Your task to perform on an android device: turn pop-ups on in chrome Image 0: 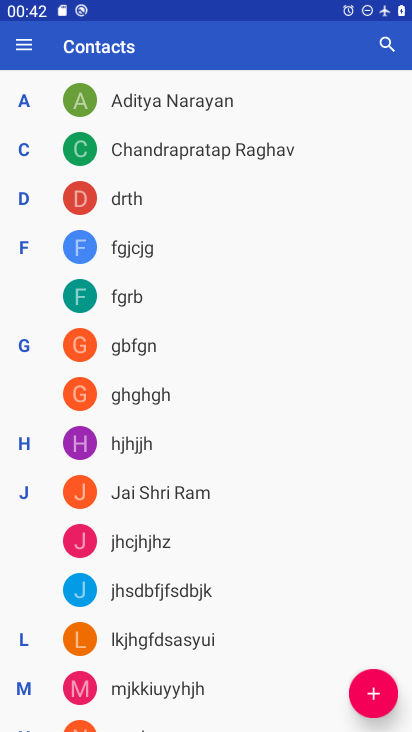
Step 0: press home button
Your task to perform on an android device: turn pop-ups on in chrome Image 1: 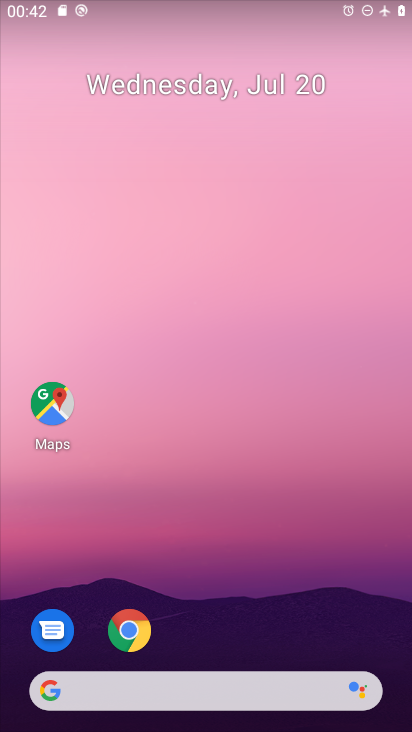
Step 1: click (123, 636)
Your task to perform on an android device: turn pop-ups on in chrome Image 2: 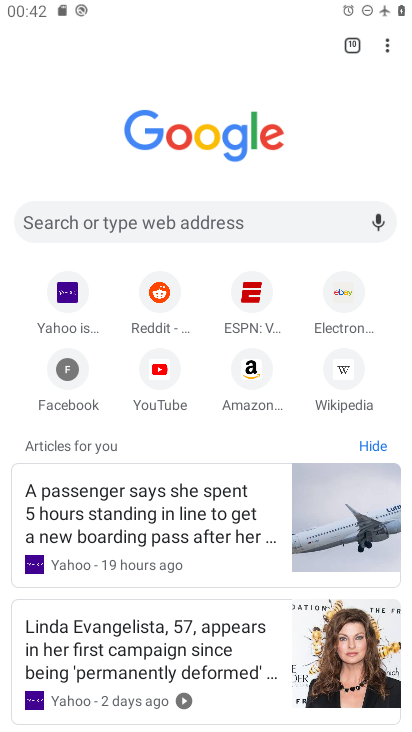
Step 2: click (385, 40)
Your task to perform on an android device: turn pop-ups on in chrome Image 3: 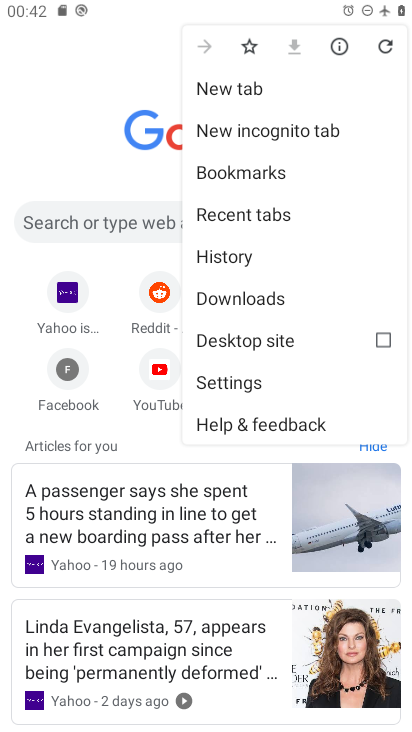
Step 3: click (243, 379)
Your task to perform on an android device: turn pop-ups on in chrome Image 4: 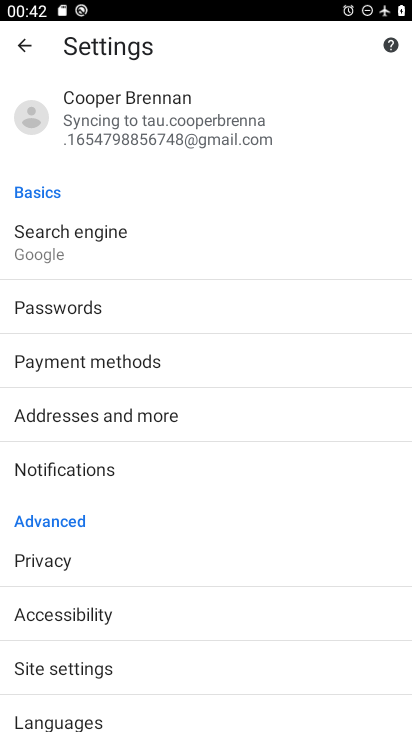
Step 4: click (98, 655)
Your task to perform on an android device: turn pop-ups on in chrome Image 5: 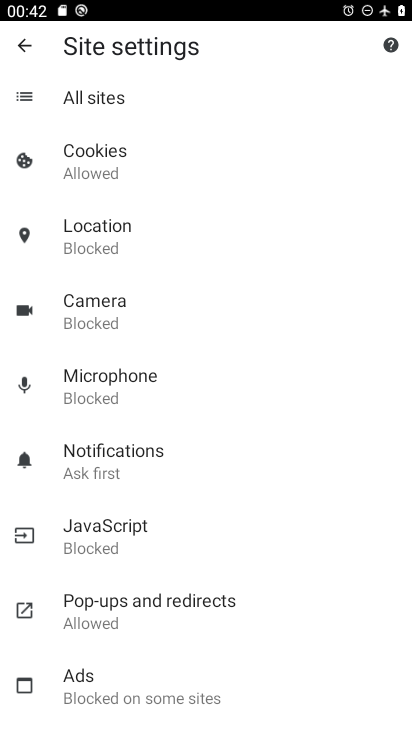
Step 5: click (157, 586)
Your task to perform on an android device: turn pop-ups on in chrome Image 6: 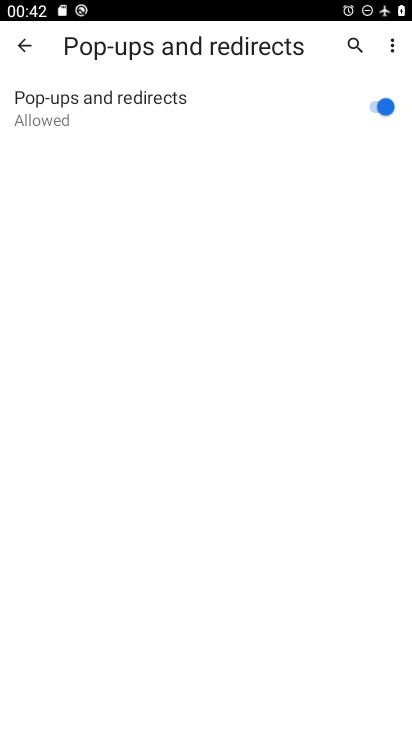
Step 6: task complete